Your task to perform on an android device: Show me recent news Image 0: 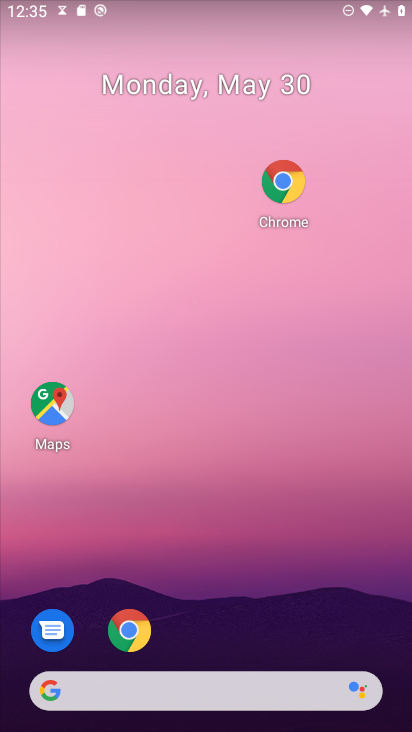
Step 0: drag from (288, 703) to (161, 103)
Your task to perform on an android device: Show me recent news Image 1: 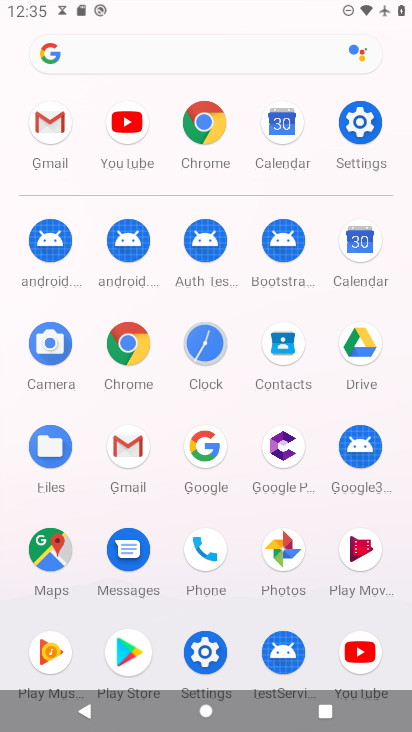
Step 1: press back button
Your task to perform on an android device: Show me recent news Image 2: 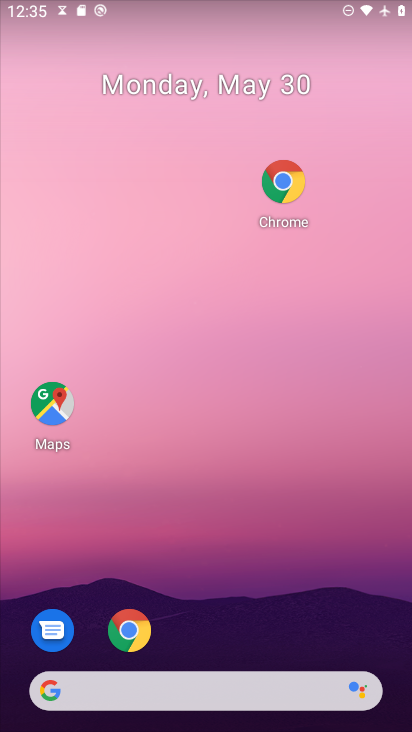
Step 2: drag from (32, 241) to (391, 321)
Your task to perform on an android device: Show me recent news Image 3: 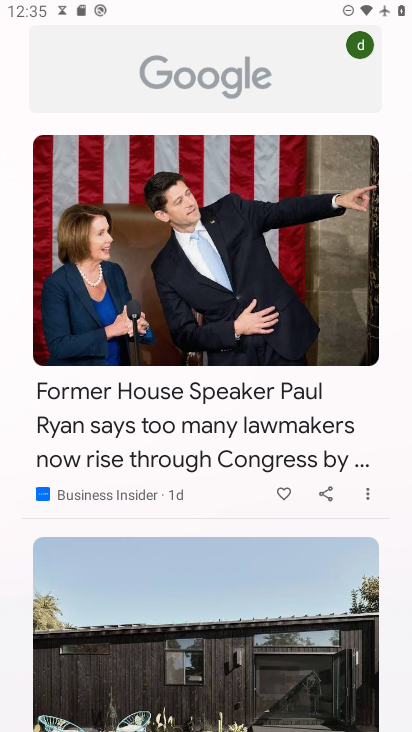
Step 3: drag from (163, 131) to (184, 480)
Your task to perform on an android device: Show me recent news Image 4: 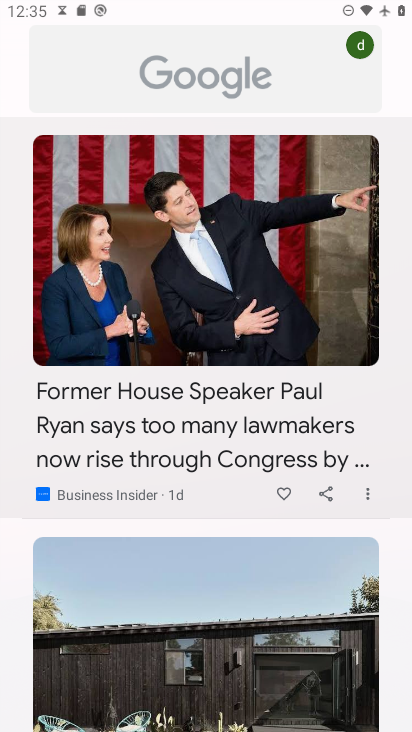
Step 4: drag from (196, 207) to (149, 524)
Your task to perform on an android device: Show me recent news Image 5: 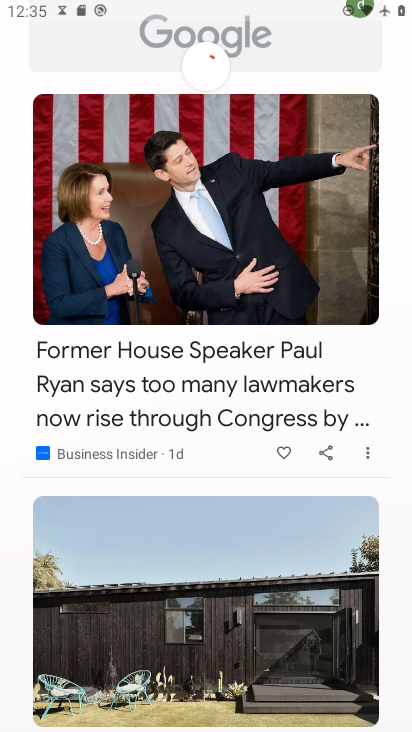
Step 5: drag from (135, 215) to (174, 562)
Your task to perform on an android device: Show me recent news Image 6: 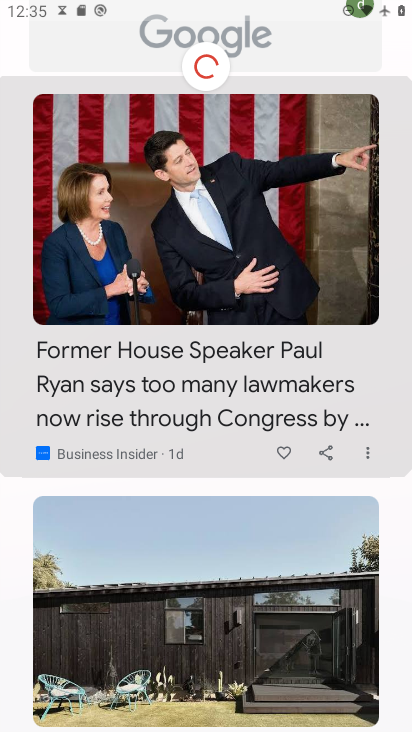
Step 6: drag from (189, 322) to (133, 716)
Your task to perform on an android device: Show me recent news Image 7: 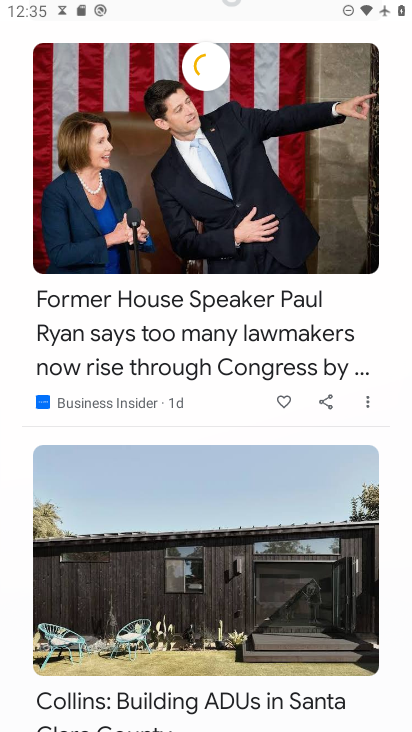
Step 7: drag from (157, 314) to (190, 694)
Your task to perform on an android device: Show me recent news Image 8: 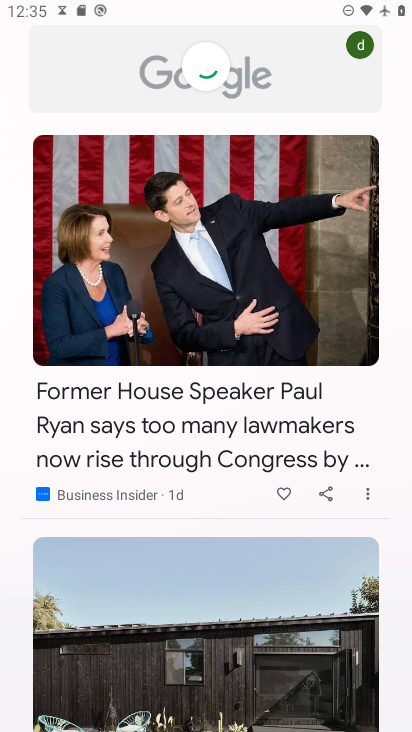
Step 8: drag from (205, 505) to (220, 680)
Your task to perform on an android device: Show me recent news Image 9: 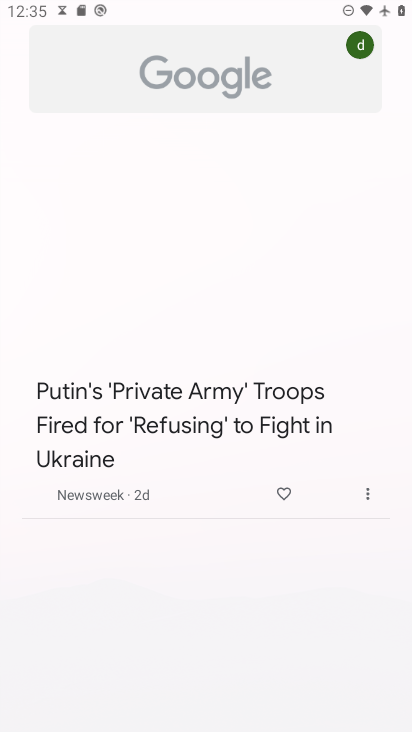
Step 9: drag from (221, 490) to (202, 104)
Your task to perform on an android device: Show me recent news Image 10: 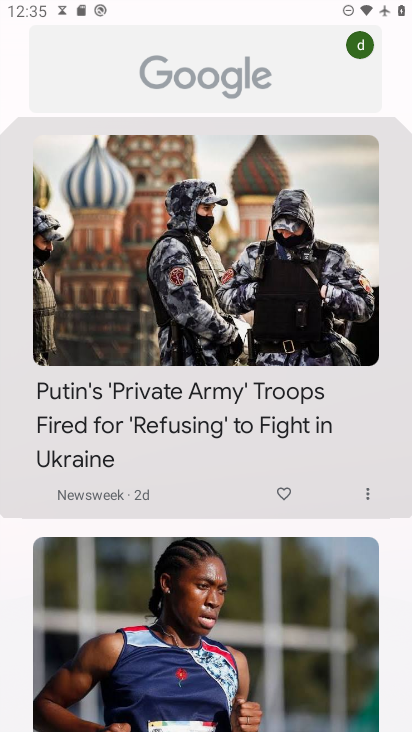
Step 10: click (168, 190)
Your task to perform on an android device: Show me recent news Image 11: 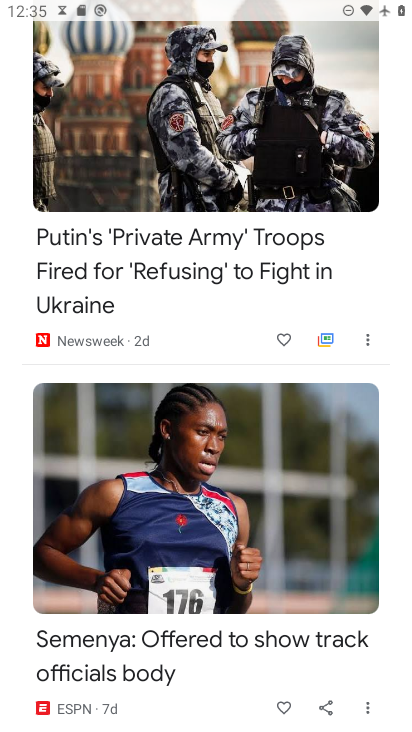
Step 11: task complete